Your task to perform on an android device: Open Maps and search for coffee Image 0: 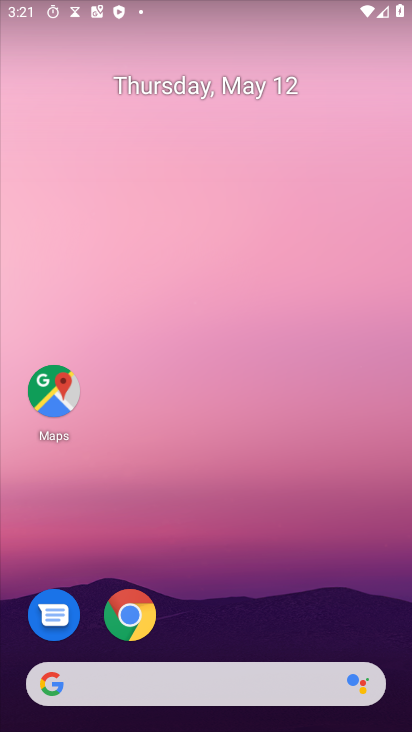
Step 0: click (45, 379)
Your task to perform on an android device: Open Maps and search for coffee Image 1: 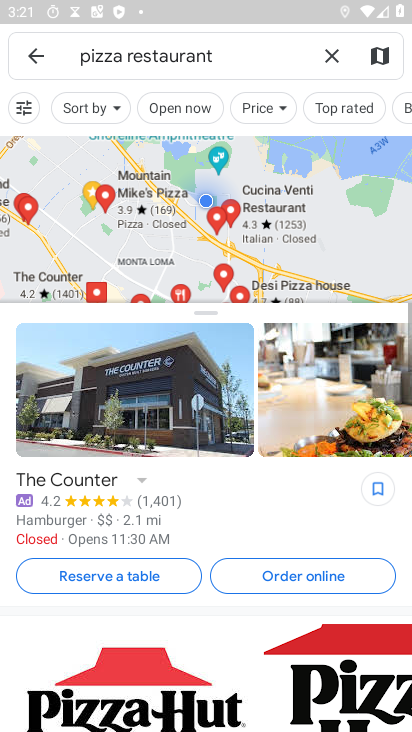
Step 1: click (323, 54)
Your task to perform on an android device: Open Maps and search for coffee Image 2: 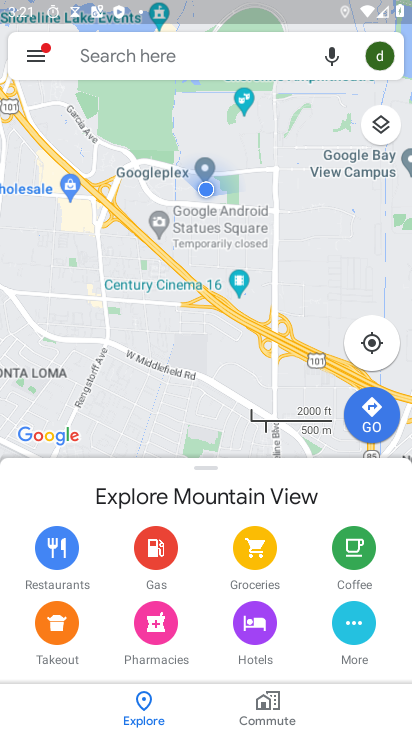
Step 2: click (137, 55)
Your task to perform on an android device: Open Maps and search for coffee Image 3: 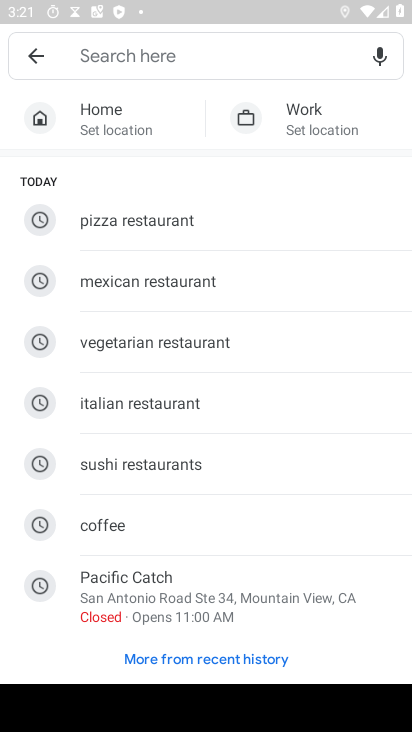
Step 3: click (142, 521)
Your task to perform on an android device: Open Maps and search for coffee Image 4: 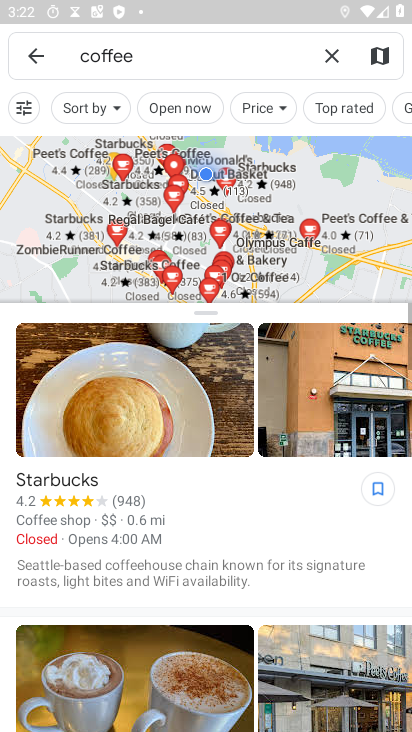
Step 4: task complete